Your task to perform on an android device: Go to sound settings Image 0: 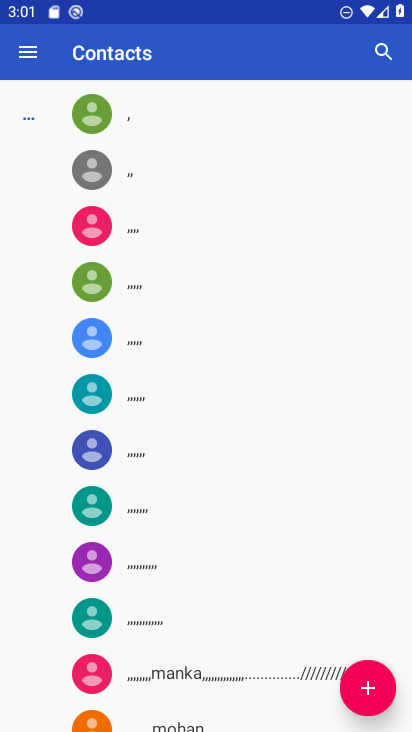
Step 0: press home button
Your task to perform on an android device: Go to sound settings Image 1: 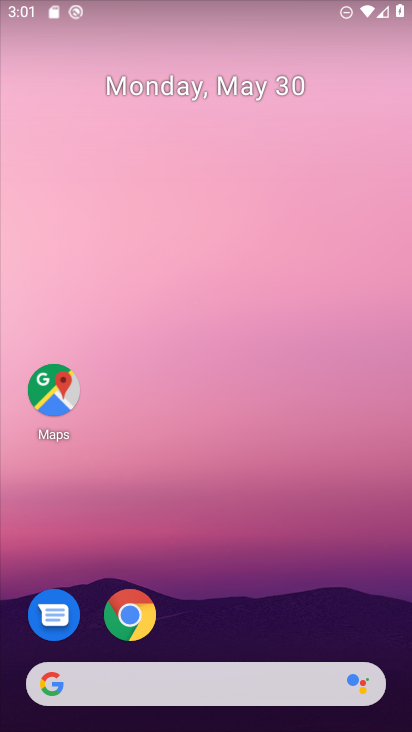
Step 1: drag from (364, 557) to (315, 224)
Your task to perform on an android device: Go to sound settings Image 2: 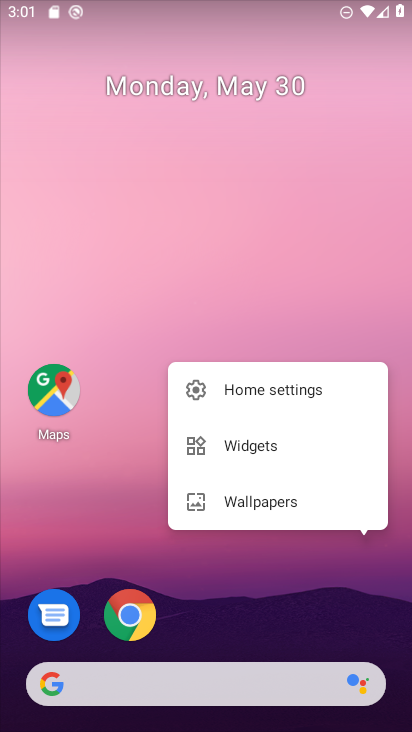
Step 2: drag from (335, 632) to (339, 208)
Your task to perform on an android device: Go to sound settings Image 3: 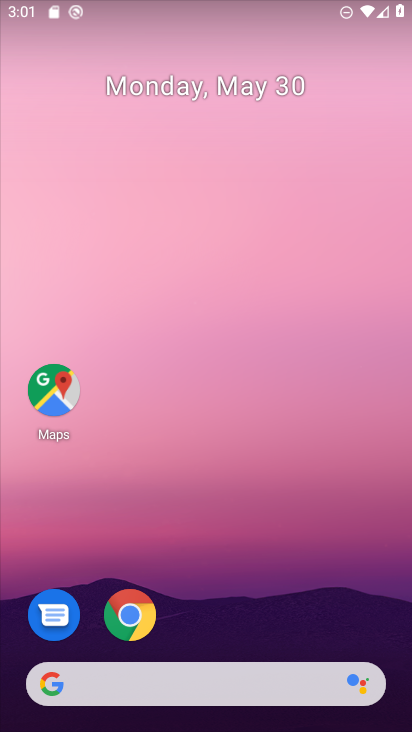
Step 3: drag from (321, 603) to (289, 221)
Your task to perform on an android device: Go to sound settings Image 4: 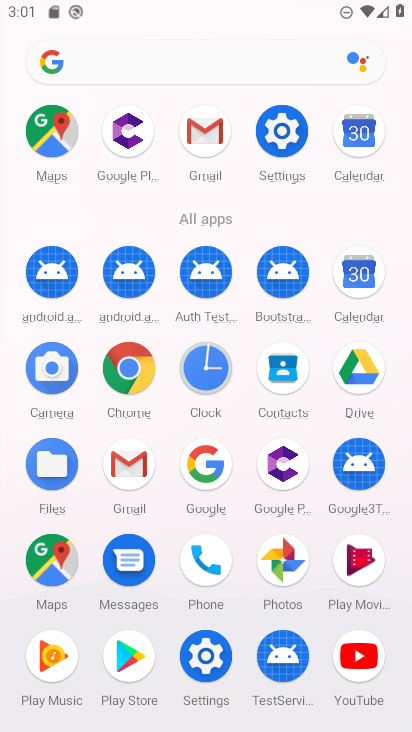
Step 4: click (286, 136)
Your task to perform on an android device: Go to sound settings Image 5: 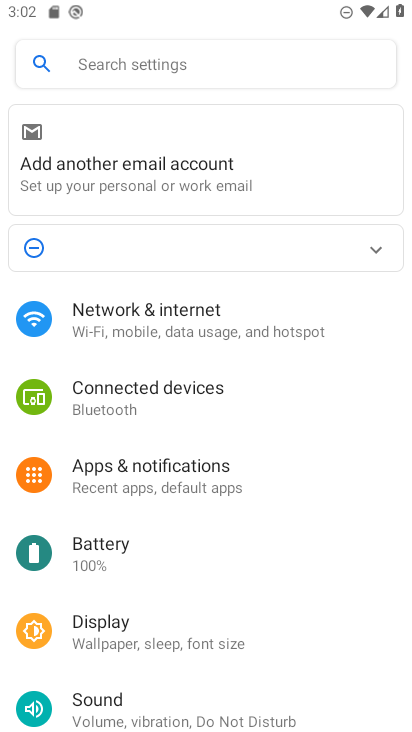
Step 5: click (141, 703)
Your task to perform on an android device: Go to sound settings Image 6: 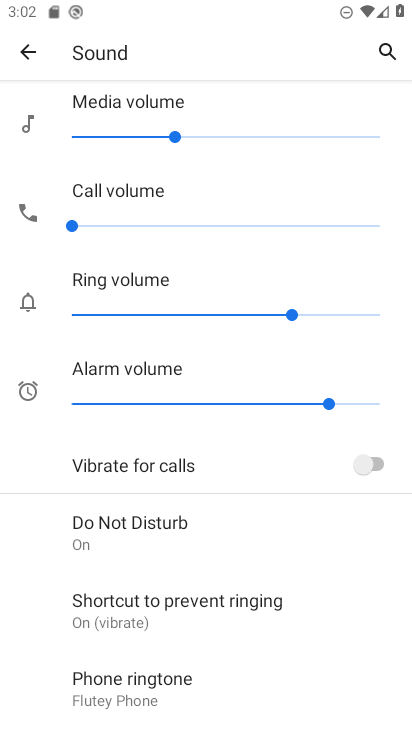
Step 6: task complete